Your task to perform on an android device: manage bookmarks in the chrome app Image 0: 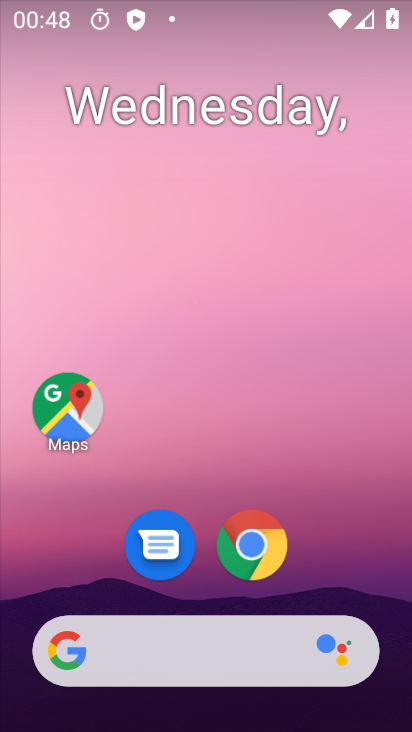
Step 0: click (254, 551)
Your task to perform on an android device: manage bookmarks in the chrome app Image 1: 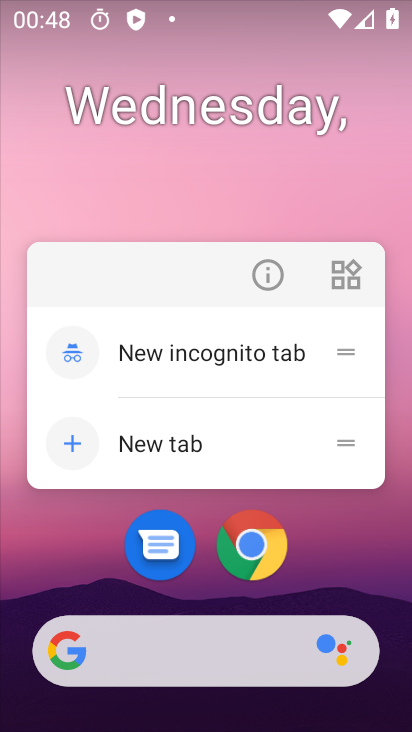
Step 1: click (252, 551)
Your task to perform on an android device: manage bookmarks in the chrome app Image 2: 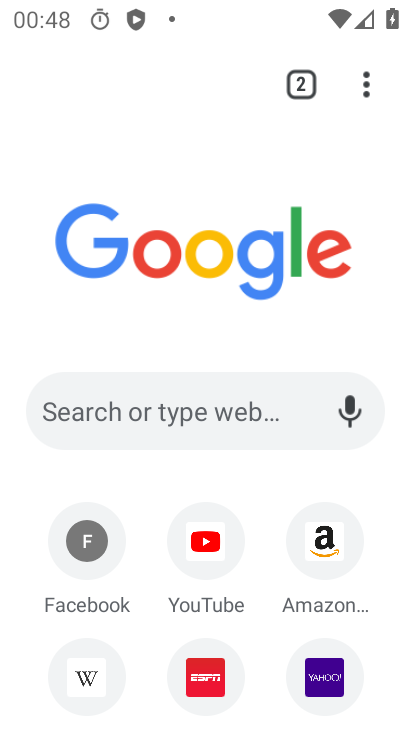
Step 2: drag from (375, 64) to (207, 321)
Your task to perform on an android device: manage bookmarks in the chrome app Image 3: 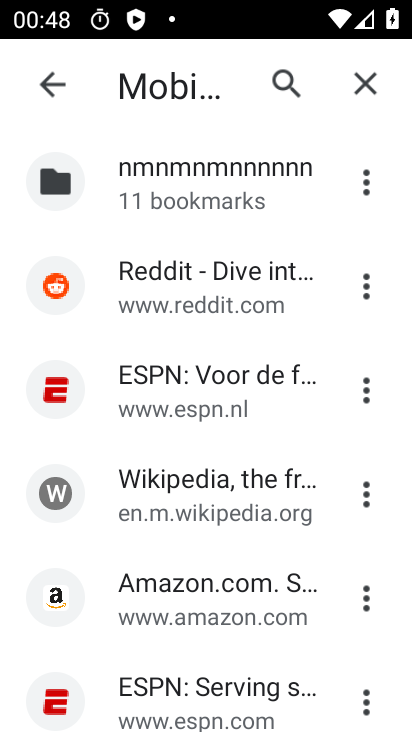
Step 3: click (365, 390)
Your task to perform on an android device: manage bookmarks in the chrome app Image 4: 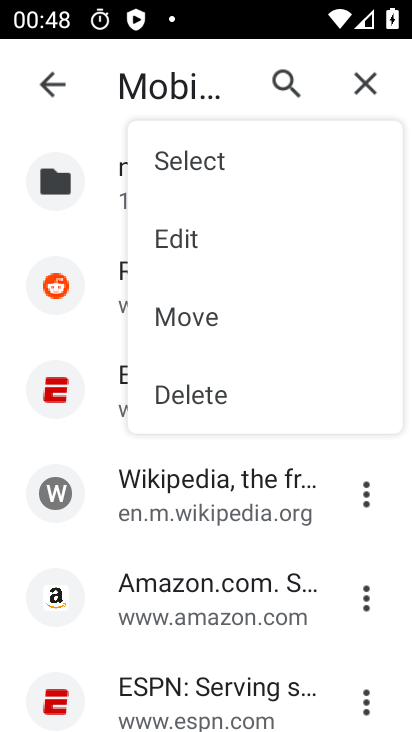
Step 4: click (197, 397)
Your task to perform on an android device: manage bookmarks in the chrome app Image 5: 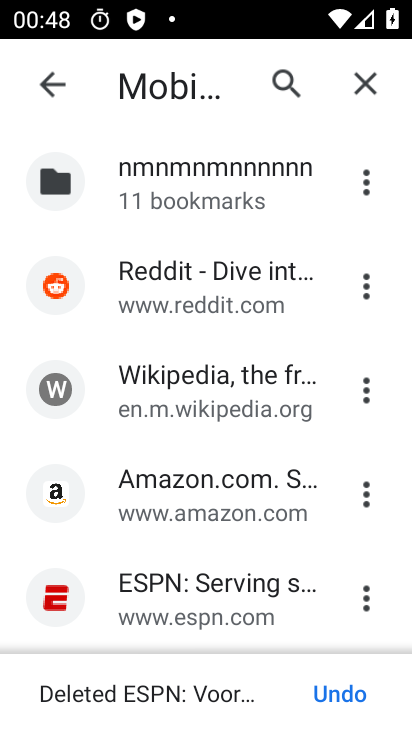
Step 5: task complete